Your task to perform on an android device: turn pop-ups off in chrome Image 0: 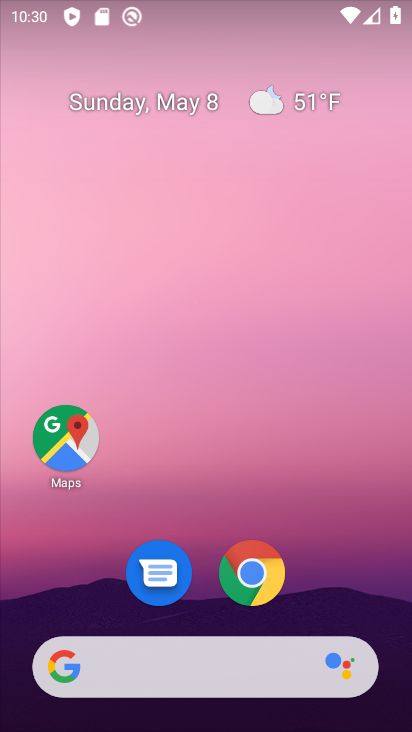
Step 0: click (267, 568)
Your task to perform on an android device: turn pop-ups off in chrome Image 1: 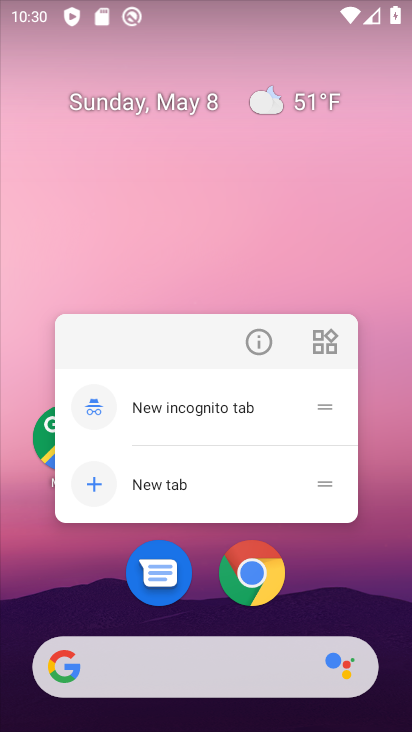
Step 1: click (250, 580)
Your task to perform on an android device: turn pop-ups off in chrome Image 2: 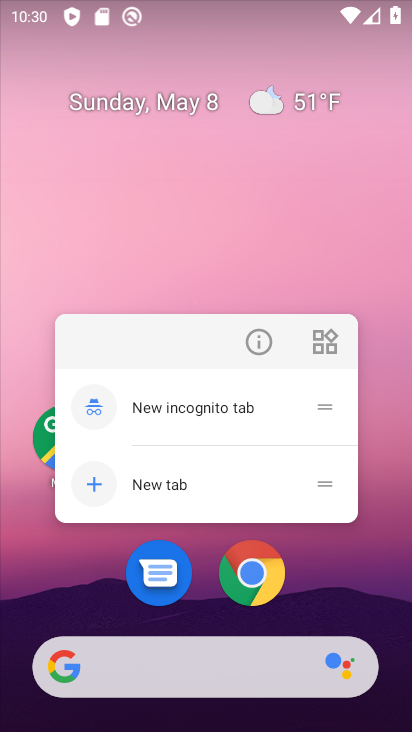
Step 2: click (250, 580)
Your task to perform on an android device: turn pop-ups off in chrome Image 3: 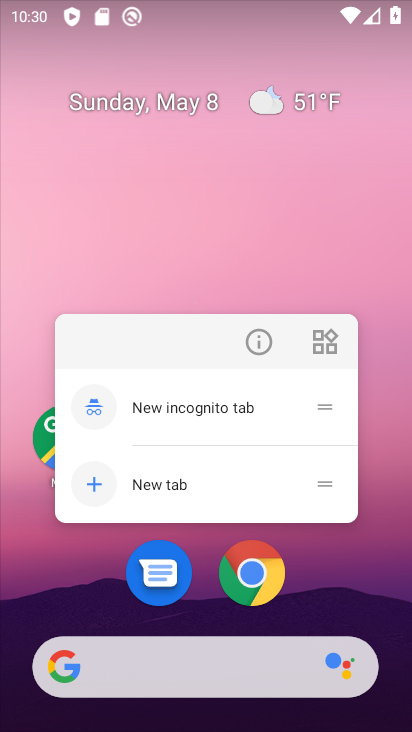
Step 3: click (241, 575)
Your task to perform on an android device: turn pop-ups off in chrome Image 4: 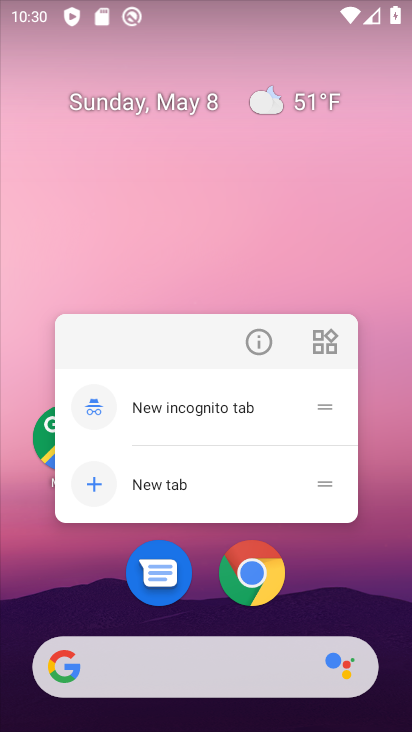
Step 4: click (245, 552)
Your task to perform on an android device: turn pop-ups off in chrome Image 5: 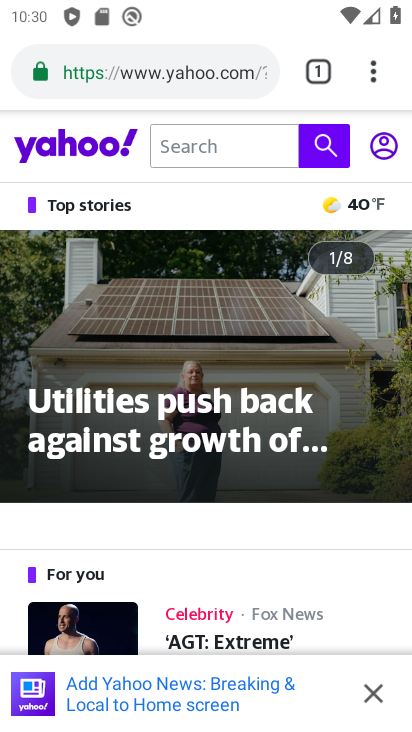
Step 5: click (369, 67)
Your task to perform on an android device: turn pop-ups off in chrome Image 6: 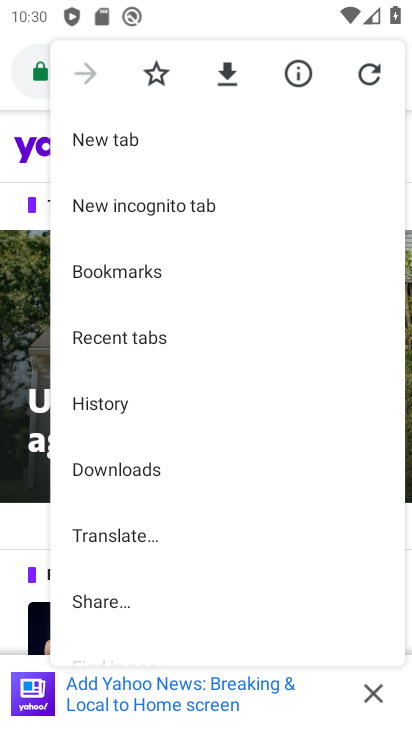
Step 6: drag from (179, 654) to (151, 333)
Your task to perform on an android device: turn pop-ups off in chrome Image 7: 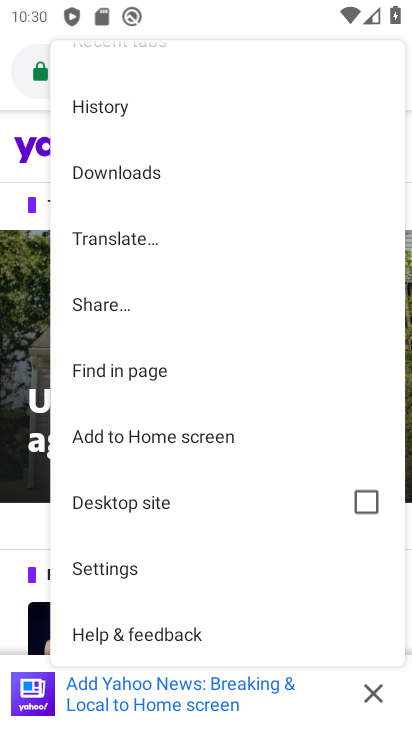
Step 7: click (107, 566)
Your task to perform on an android device: turn pop-ups off in chrome Image 8: 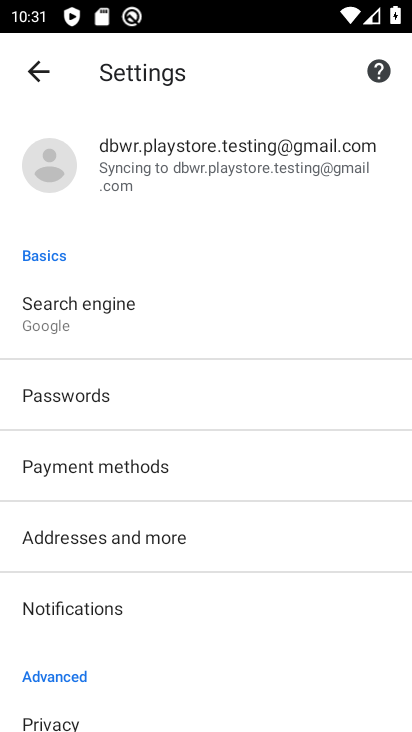
Step 8: drag from (138, 697) to (148, 381)
Your task to perform on an android device: turn pop-ups off in chrome Image 9: 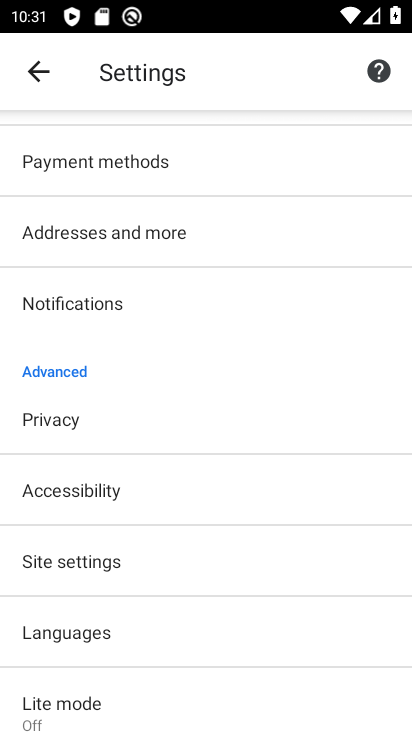
Step 9: drag from (105, 655) to (114, 418)
Your task to perform on an android device: turn pop-ups off in chrome Image 10: 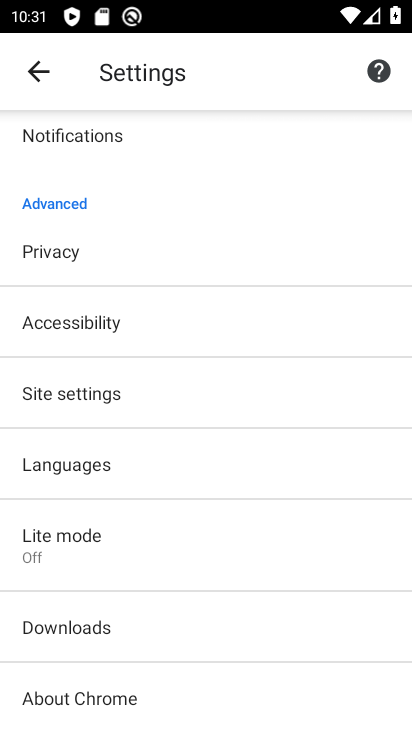
Step 10: drag from (90, 716) to (139, 364)
Your task to perform on an android device: turn pop-ups off in chrome Image 11: 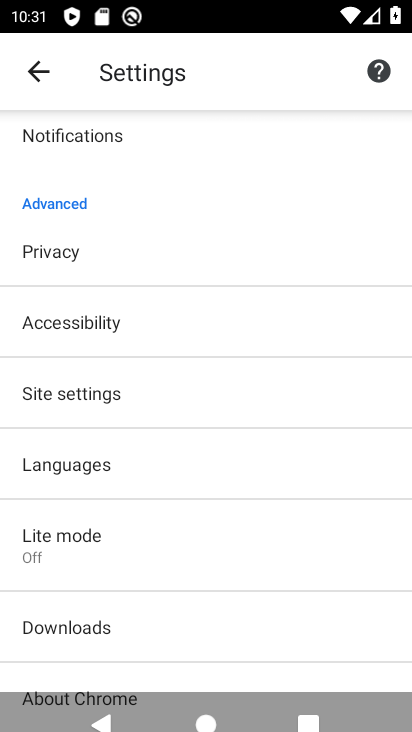
Step 11: click (60, 393)
Your task to perform on an android device: turn pop-ups off in chrome Image 12: 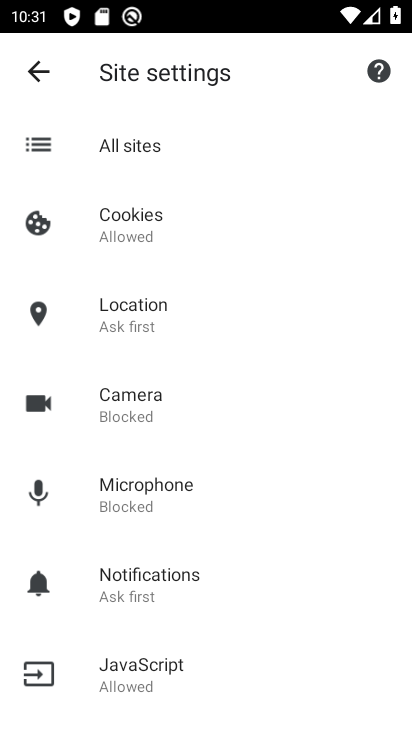
Step 12: drag from (161, 690) to (191, 392)
Your task to perform on an android device: turn pop-ups off in chrome Image 13: 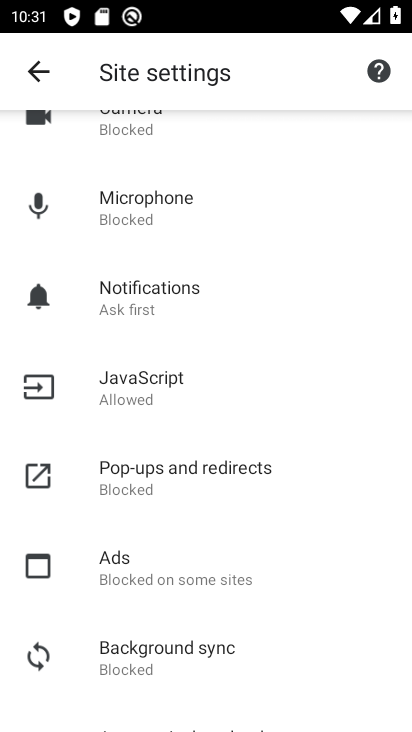
Step 13: click (171, 482)
Your task to perform on an android device: turn pop-ups off in chrome Image 14: 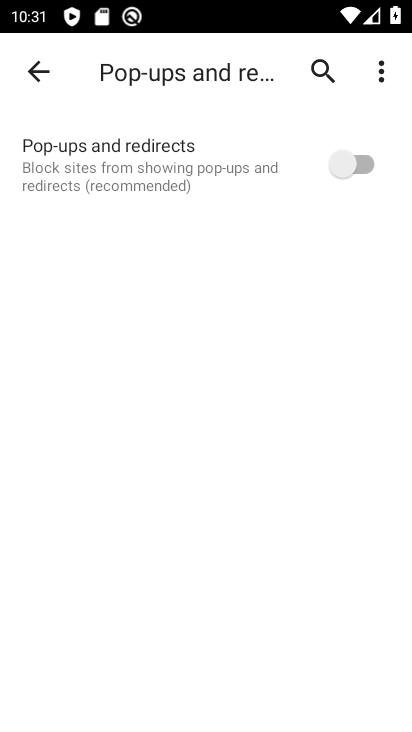
Step 14: task complete